Your task to perform on an android device: Open a new incognito window in Chrome Image 0: 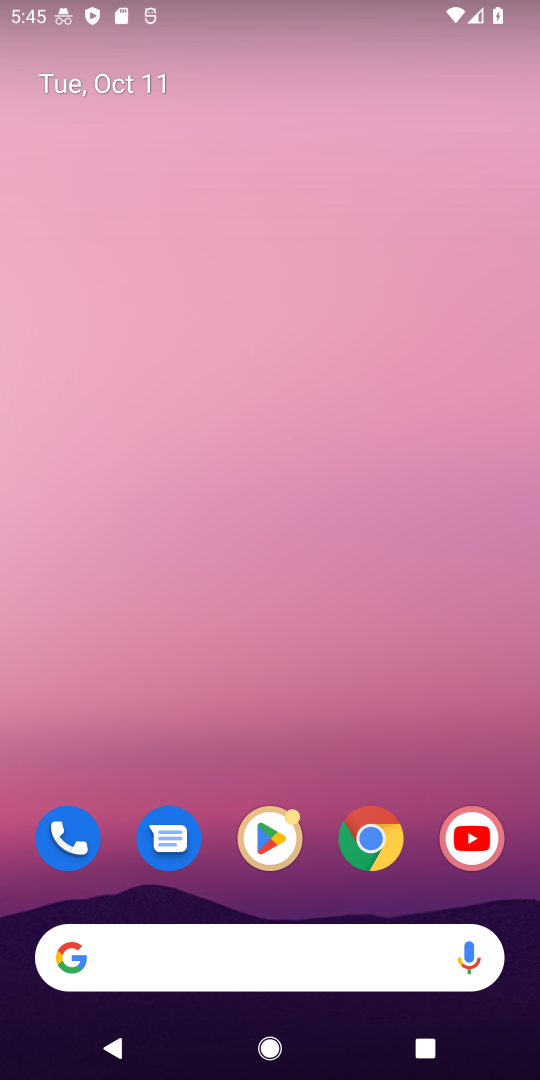
Step 0: click (361, 835)
Your task to perform on an android device: Open a new incognito window in Chrome Image 1: 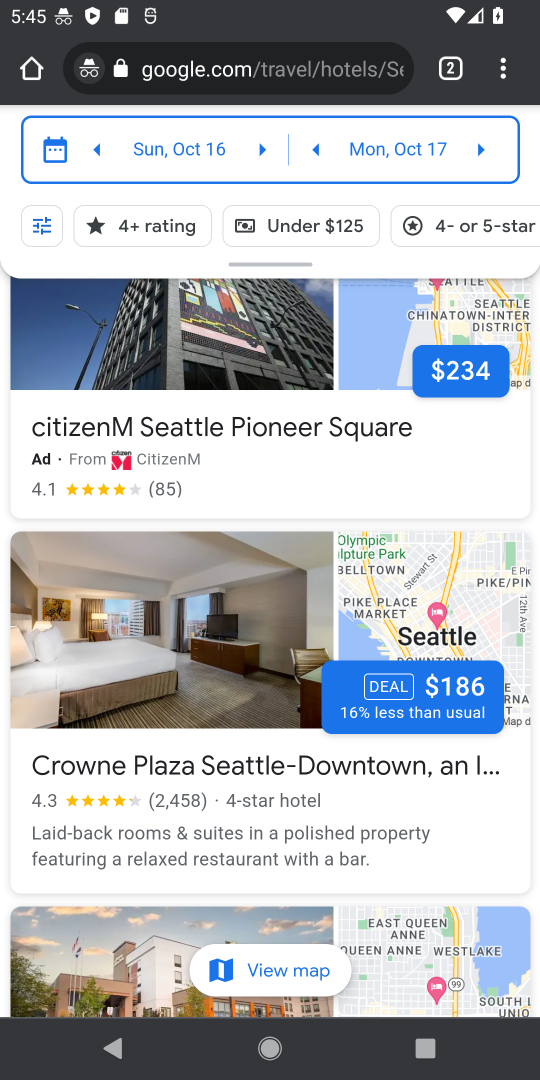
Step 1: click (495, 71)
Your task to perform on an android device: Open a new incognito window in Chrome Image 2: 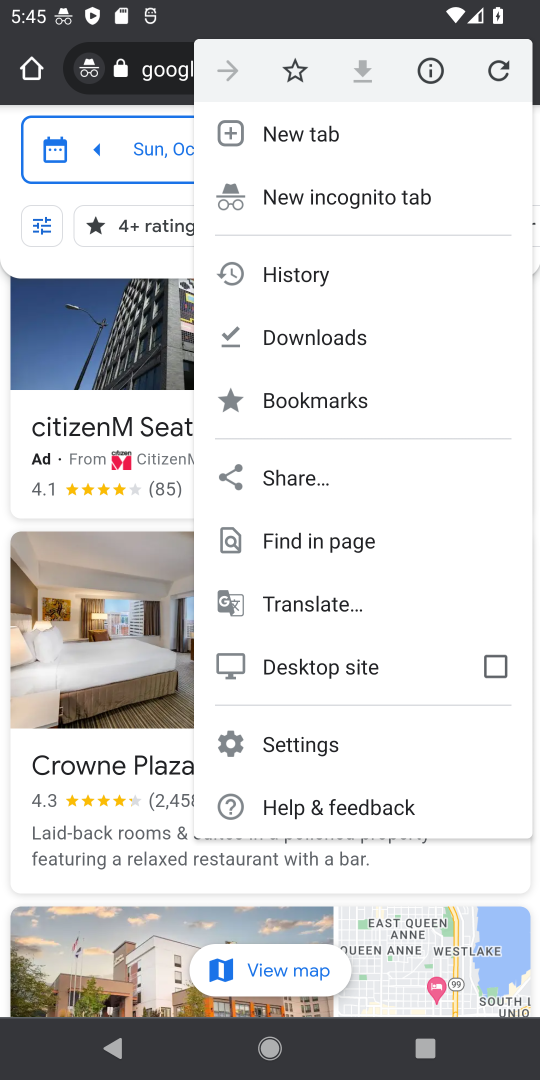
Step 2: click (383, 197)
Your task to perform on an android device: Open a new incognito window in Chrome Image 3: 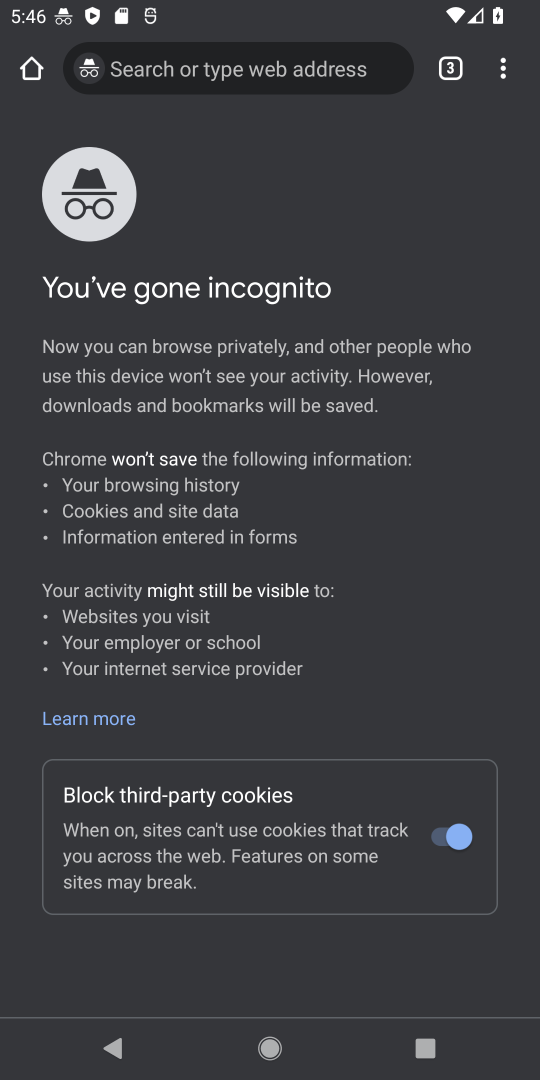
Step 3: task complete